Your task to perform on an android device: Open Chrome and go to settings Image 0: 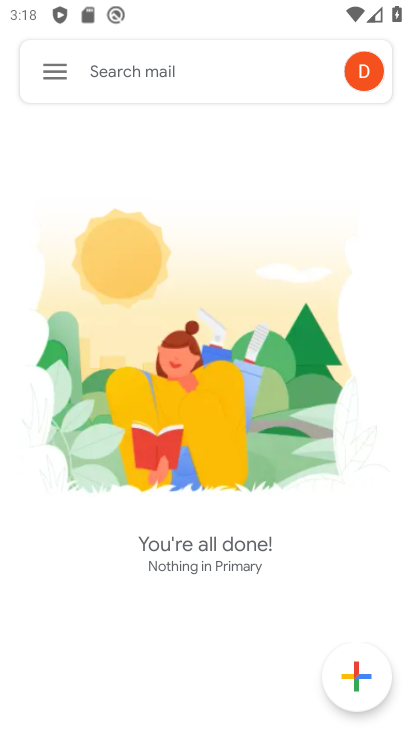
Step 0: press home button
Your task to perform on an android device: Open Chrome and go to settings Image 1: 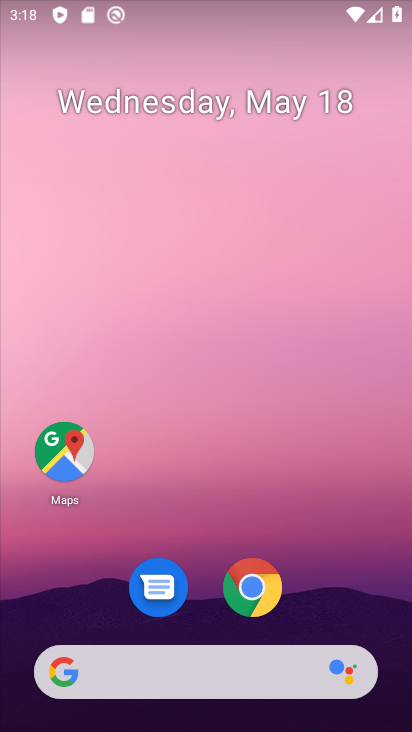
Step 1: click (250, 592)
Your task to perform on an android device: Open Chrome and go to settings Image 2: 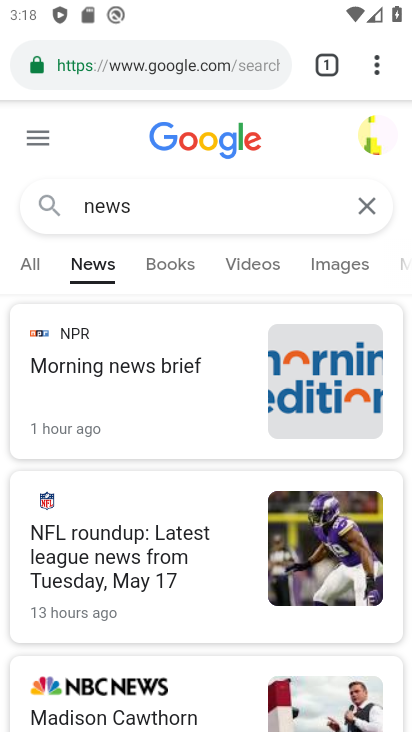
Step 2: task complete